Your task to perform on an android device: turn off notifications settings in the gmail app Image 0: 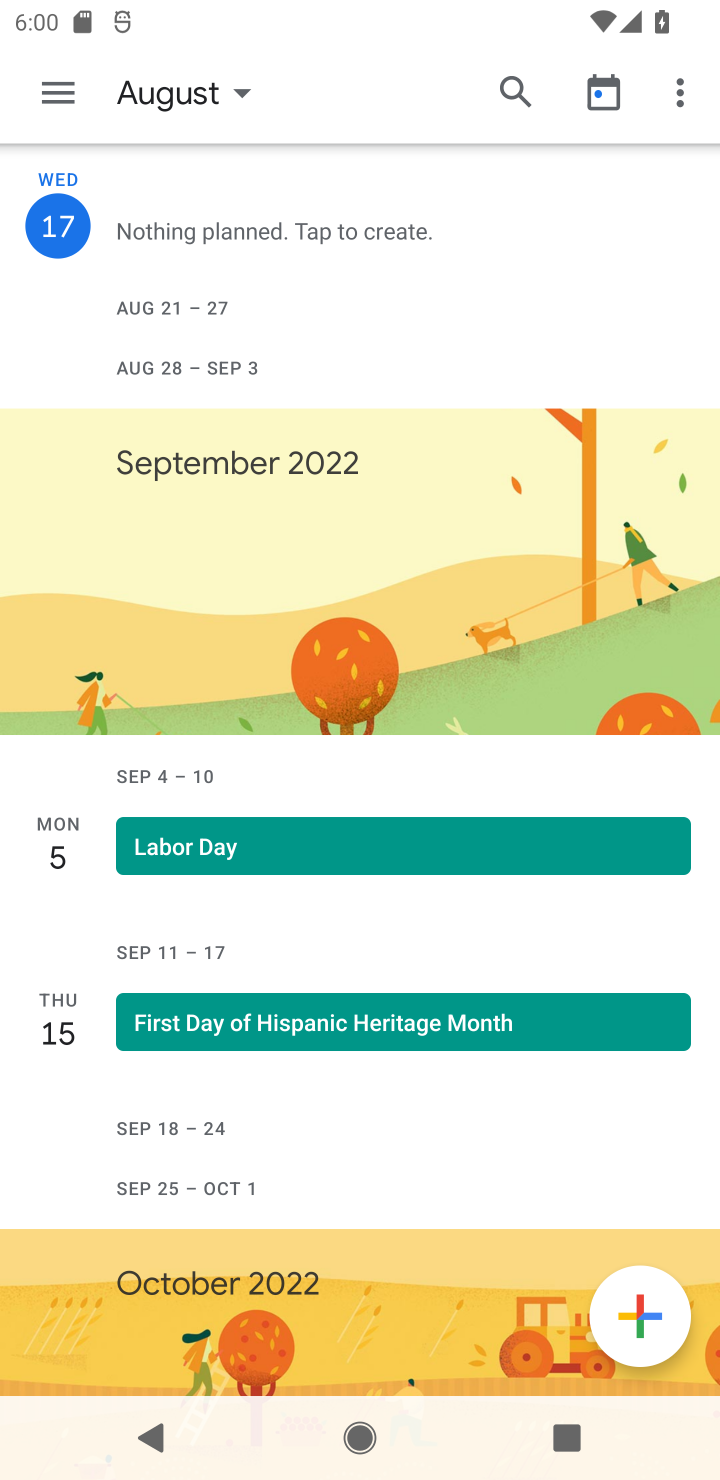
Step 0: task complete